Your task to perform on an android device: Do I have any events tomorrow? Image 0: 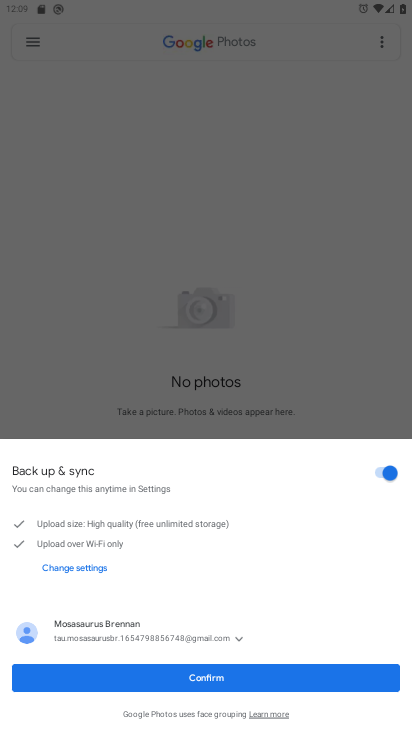
Step 0: press back button
Your task to perform on an android device: Do I have any events tomorrow? Image 1: 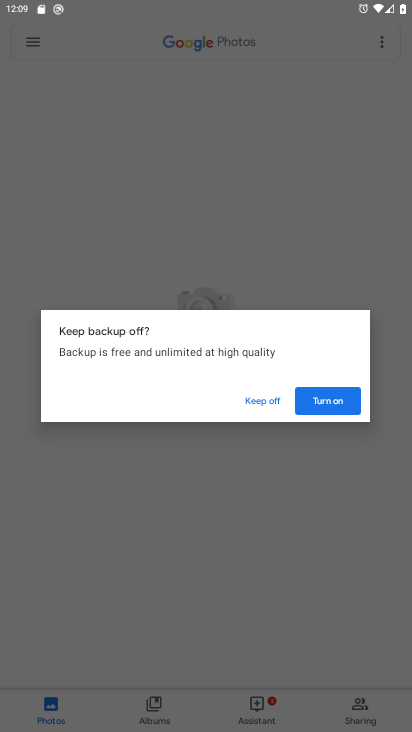
Step 1: click (241, 397)
Your task to perform on an android device: Do I have any events tomorrow? Image 2: 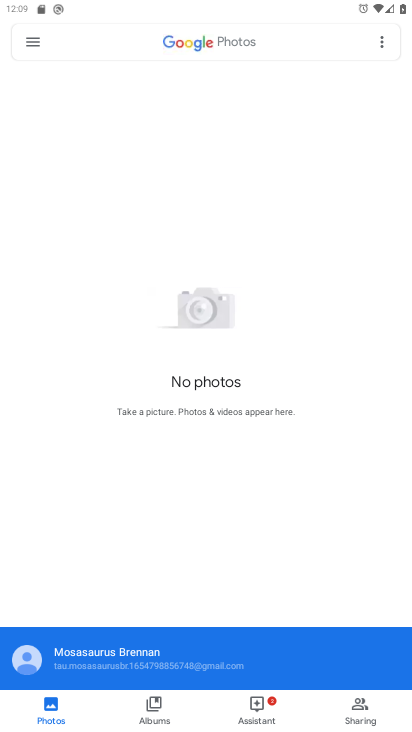
Step 2: press home button
Your task to perform on an android device: Do I have any events tomorrow? Image 3: 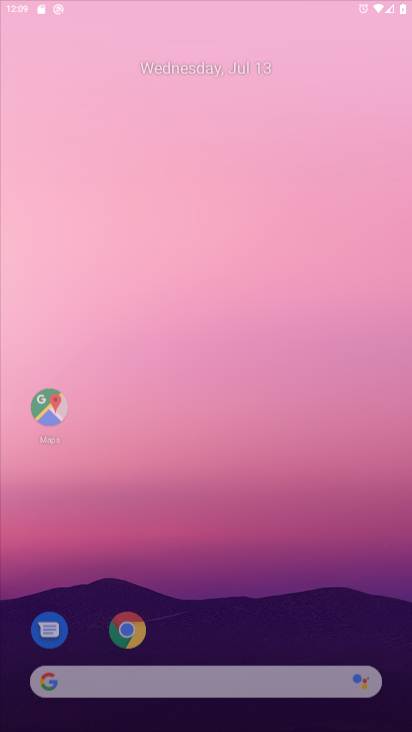
Step 3: drag from (263, 618) to (194, 118)
Your task to perform on an android device: Do I have any events tomorrow? Image 4: 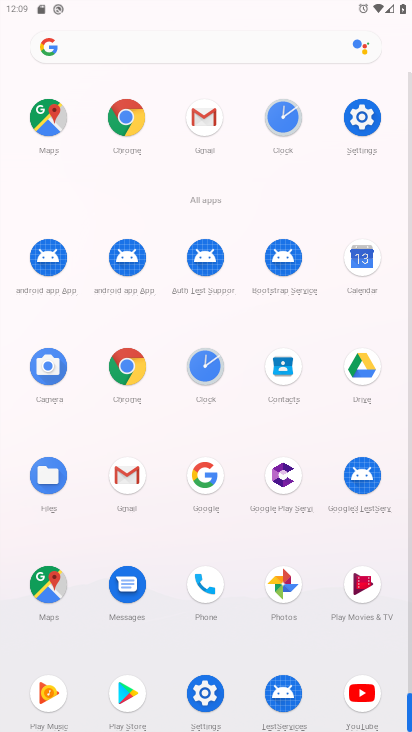
Step 4: drag from (243, 508) to (192, 154)
Your task to perform on an android device: Do I have any events tomorrow? Image 5: 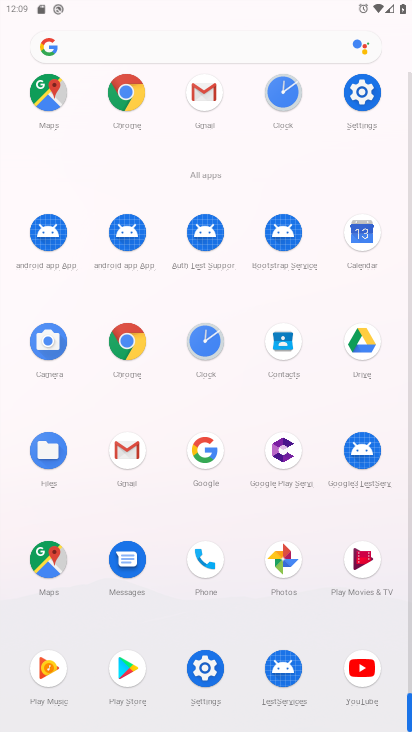
Step 5: click (358, 230)
Your task to perform on an android device: Do I have any events tomorrow? Image 6: 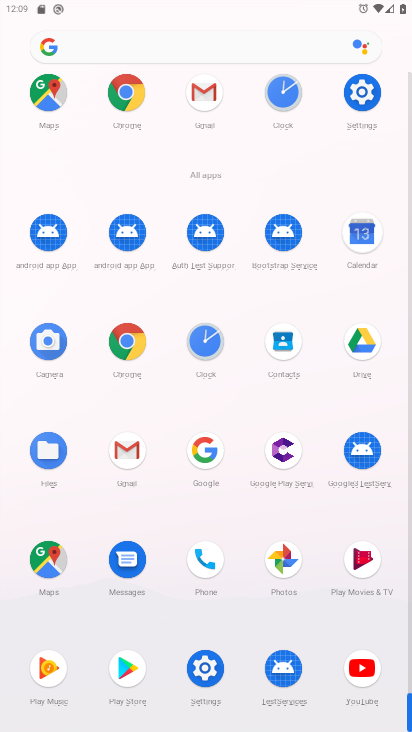
Step 6: click (358, 226)
Your task to perform on an android device: Do I have any events tomorrow? Image 7: 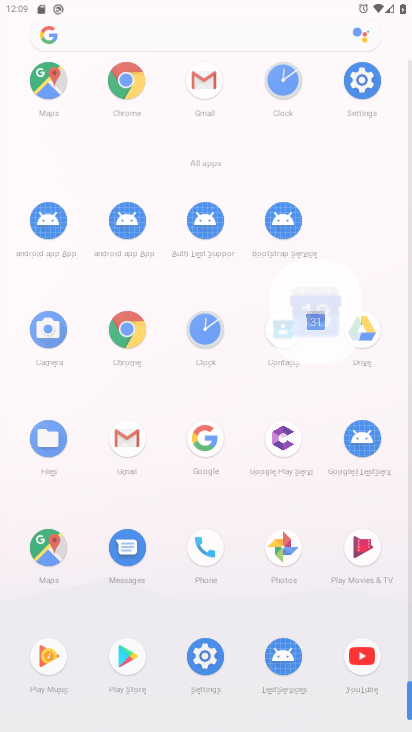
Step 7: click (360, 226)
Your task to perform on an android device: Do I have any events tomorrow? Image 8: 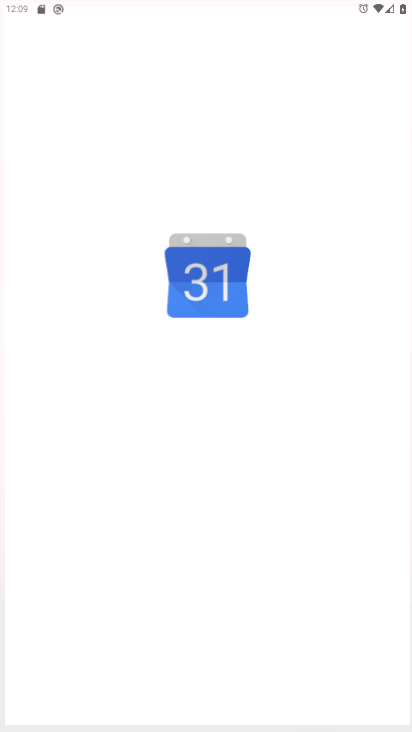
Step 8: click (360, 226)
Your task to perform on an android device: Do I have any events tomorrow? Image 9: 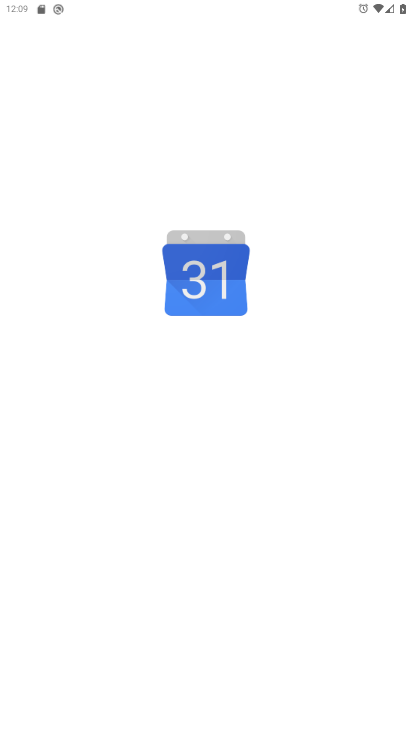
Step 9: click (361, 226)
Your task to perform on an android device: Do I have any events tomorrow? Image 10: 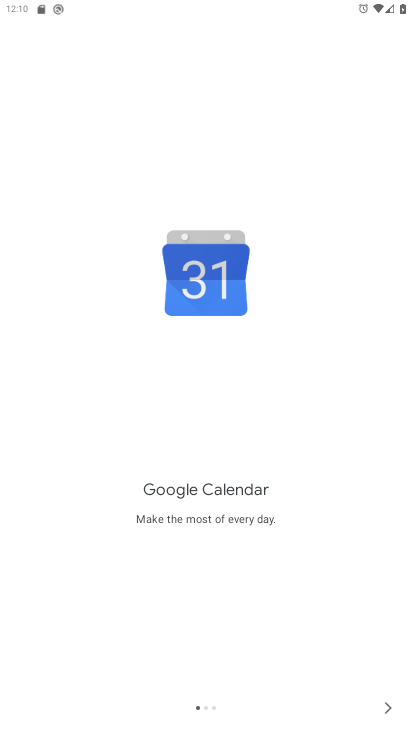
Step 10: click (379, 678)
Your task to perform on an android device: Do I have any events tomorrow? Image 11: 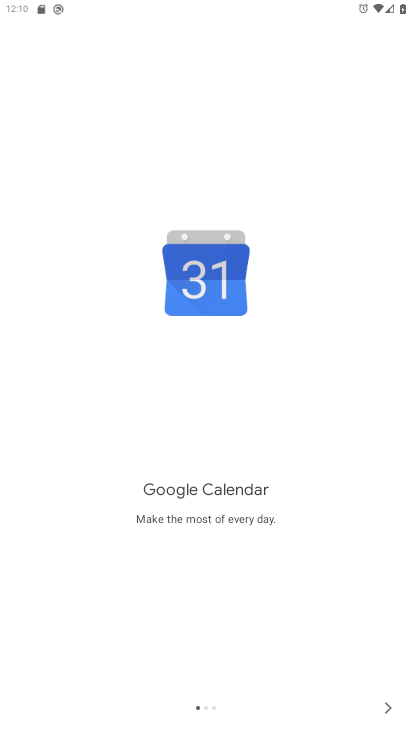
Step 11: click (388, 700)
Your task to perform on an android device: Do I have any events tomorrow? Image 12: 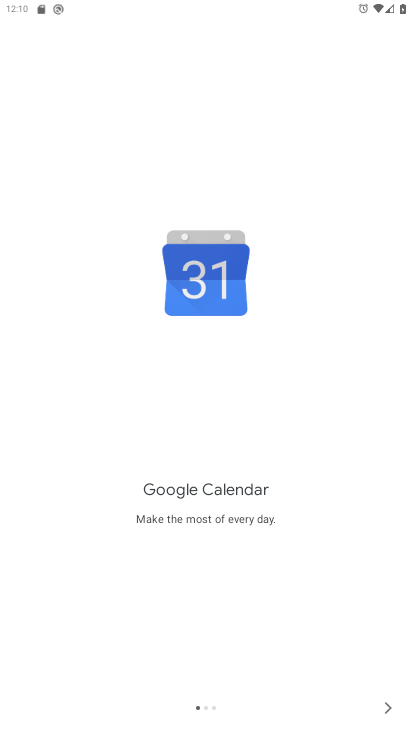
Step 12: click (388, 700)
Your task to perform on an android device: Do I have any events tomorrow? Image 13: 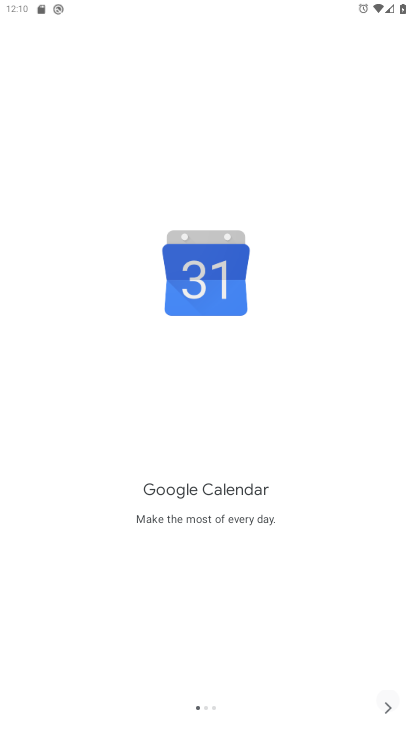
Step 13: click (388, 701)
Your task to perform on an android device: Do I have any events tomorrow? Image 14: 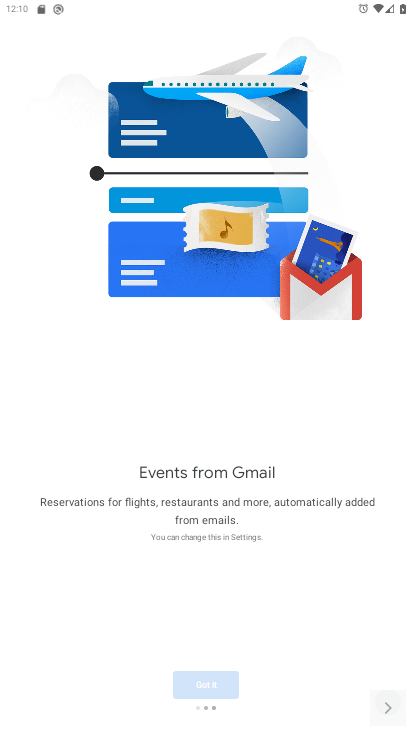
Step 14: click (389, 702)
Your task to perform on an android device: Do I have any events tomorrow? Image 15: 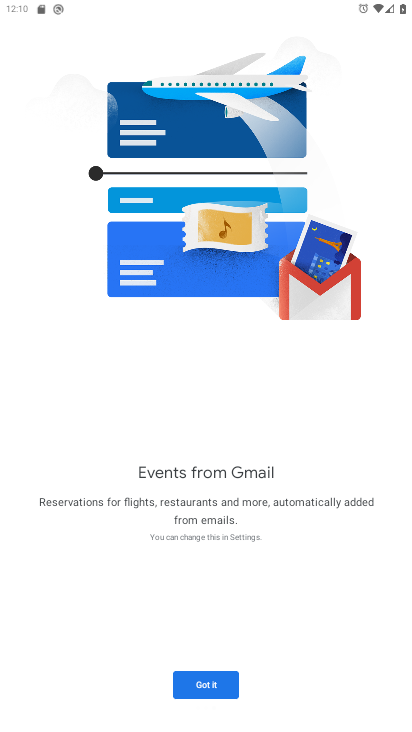
Step 15: click (390, 703)
Your task to perform on an android device: Do I have any events tomorrow? Image 16: 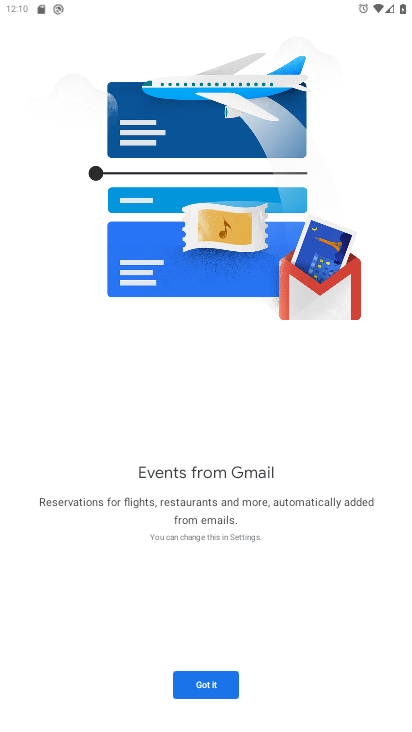
Step 16: click (390, 703)
Your task to perform on an android device: Do I have any events tomorrow? Image 17: 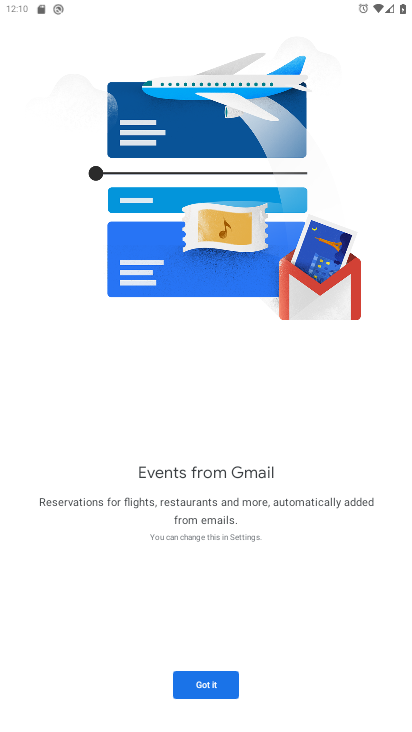
Step 17: click (390, 703)
Your task to perform on an android device: Do I have any events tomorrow? Image 18: 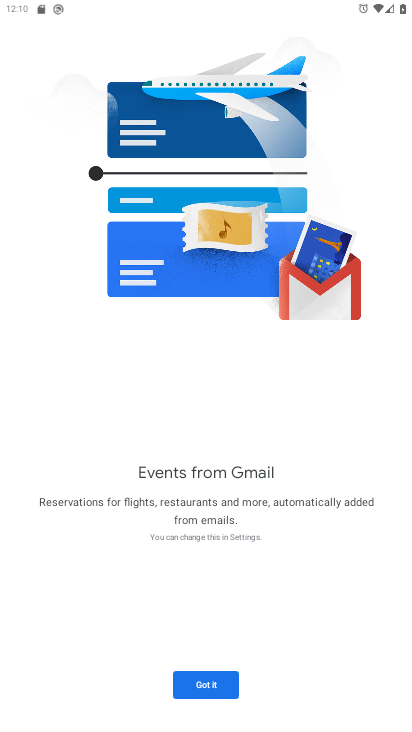
Step 18: click (391, 704)
Your task to perform on an android device: Do I have any events tomorrow? Image 19: 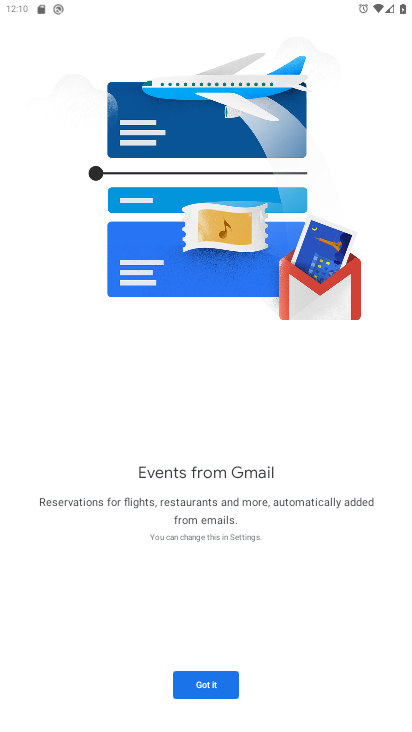
Step 19: click (392, 705)
Your task to perform on an android device: Do I have any events tomorrow? Image 20: 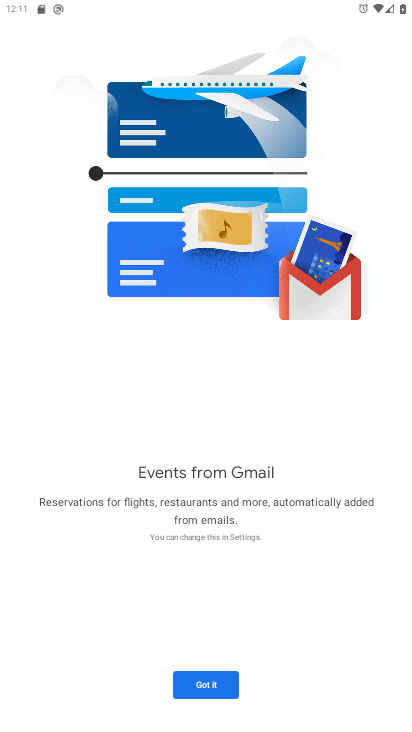
Step 20: click (391, 707)
Your task to perform on an android device: Do I have any events tomorrow? Image 21: 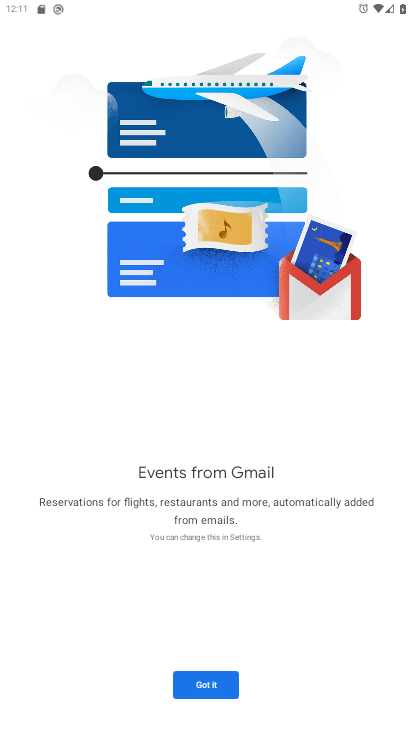
Step 21: click (220, 685)
Your task to perform on an android device: Do I have any events tomorrow? Image 22: 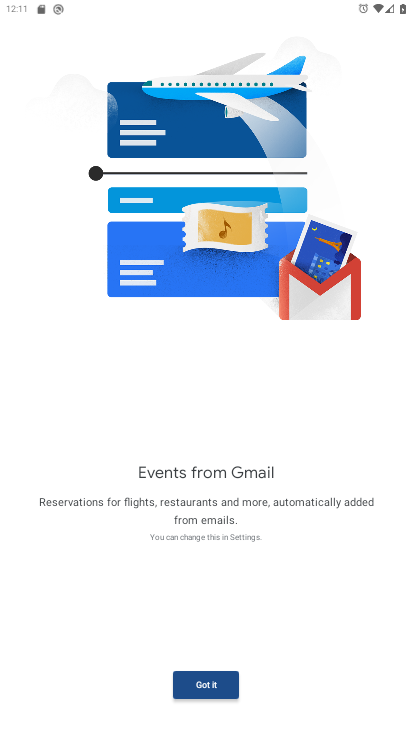
Step 22: click (219, 684)
Your task to perform on an android device: Do I have any events tomorrow? Image 23: 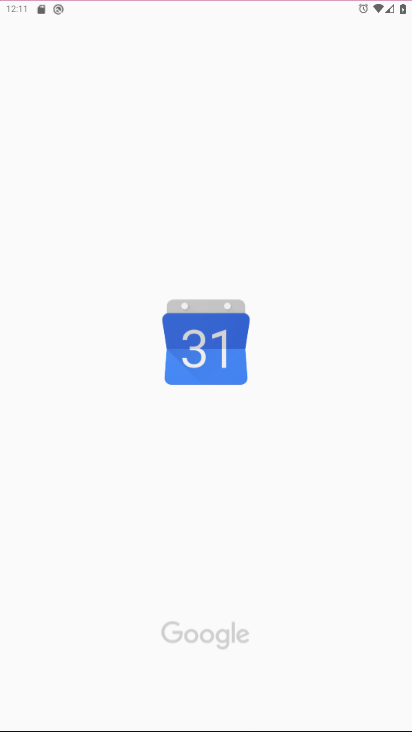
Step 23: click (219, 684)
Your task to perform on an android device: Do I have any events tomorrow? Image 24: 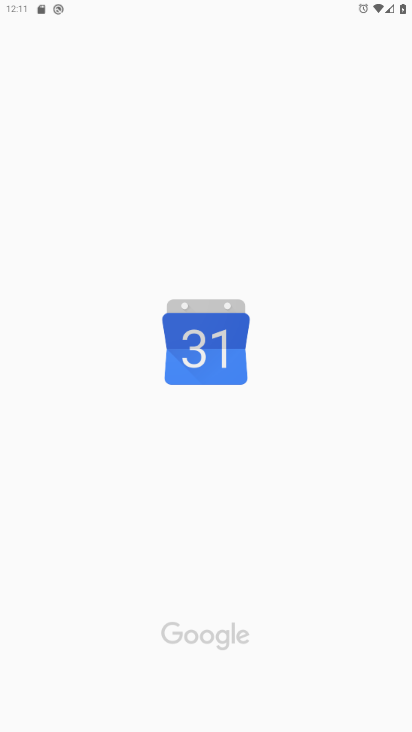
Step 24: click (215, 680)
Your task to perform on an android device: Do I have any events tomorrow? Image 25: 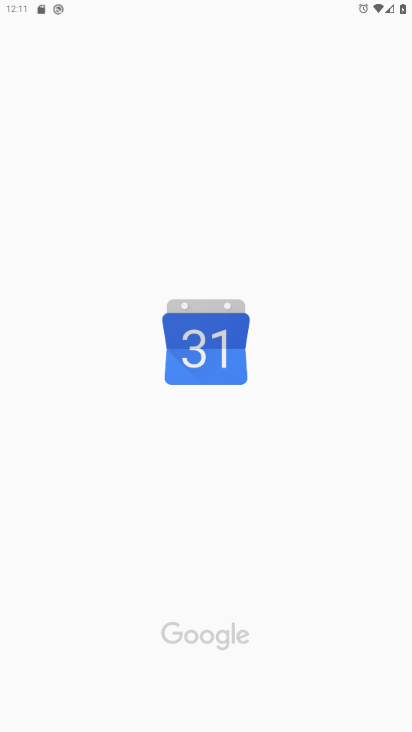
Step 25: click (215, 680)
Your task to perform on an android device: Do I have any events tomorrow? Image 26: 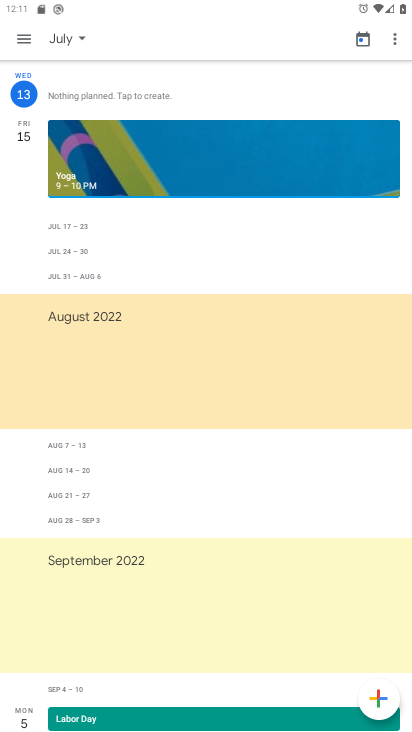
Step 26: click (81, 34)
Your task to perform on an android device: Do I have any events tomorrow? Image 27: 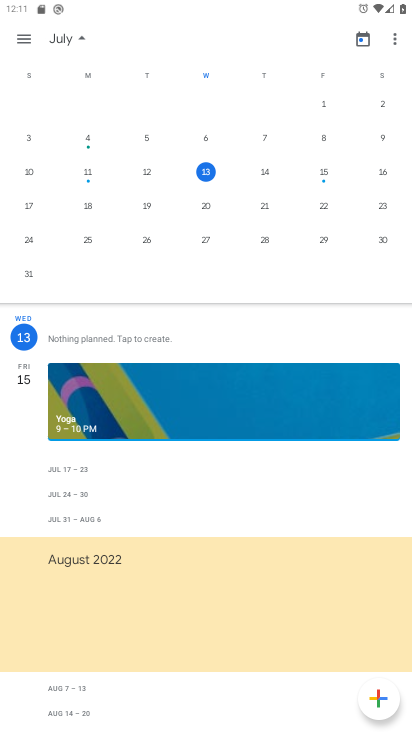
Step 27: click (262, 171)
Your task to perform on an android device: Do I have any events tomorrow? Image 28: 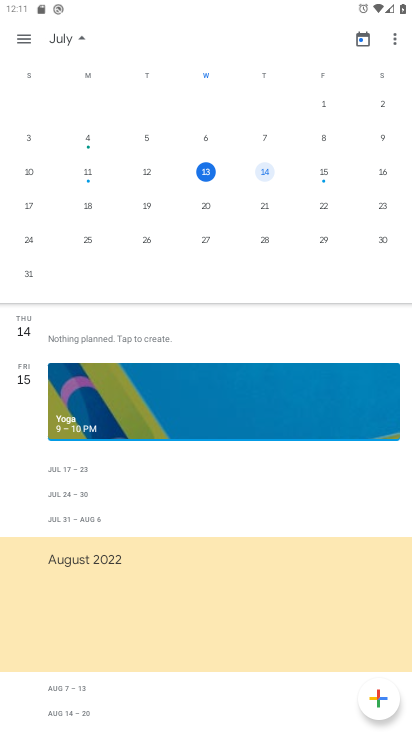
Step 28: click (261, 169)
Your task to perform on an android device: Do I have any events tomorrow? Image 29: 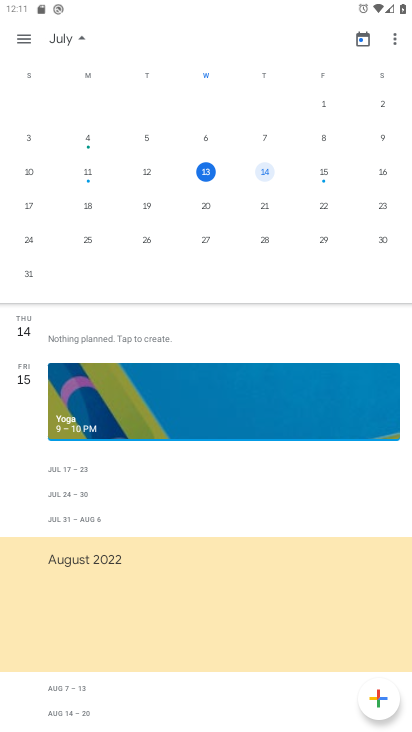
Step 29: click (261, 169)
Your task to perform on an android device: Do I have any events tomorrow? Image 30: 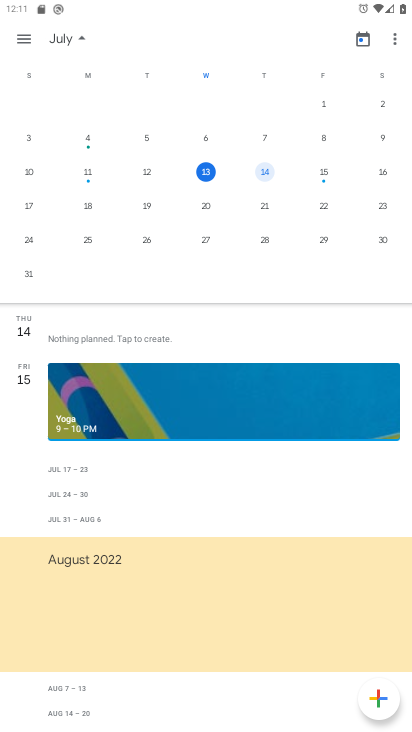
Step 30: click (261, 169)
Your task to perform on an android device: Do I have any events tomorrow? Image 31: 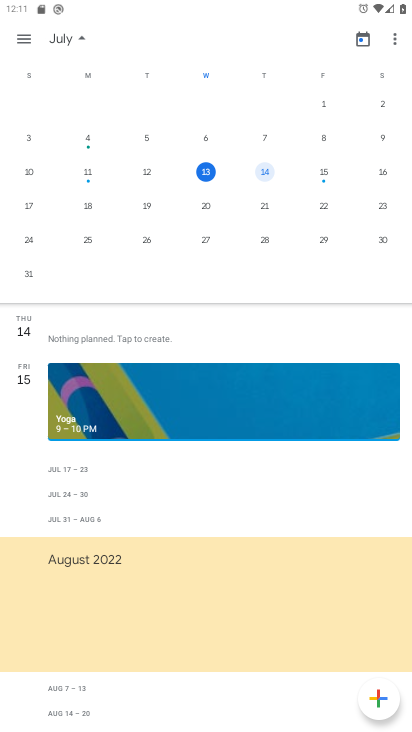
Step 31: task complete